Your task to perform on an android device: turn notification dots on Image 0: 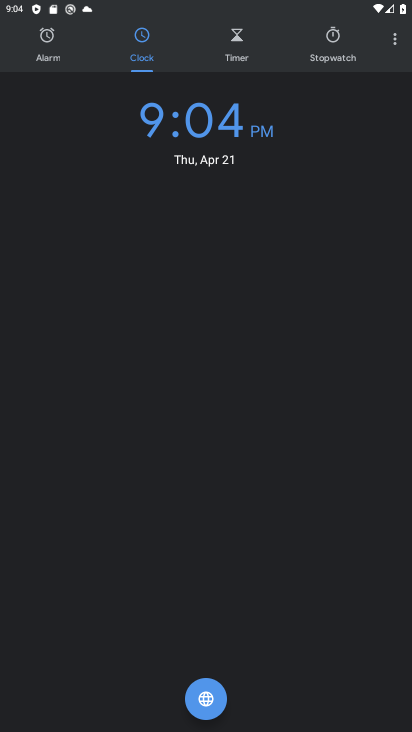
Step 0: press home button
Your task to perform on an android device: turn notification dots on Image 1: 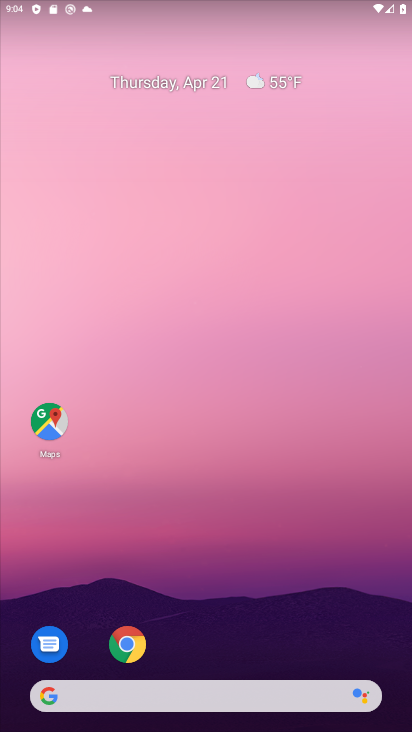
Step 1: drag from (181, 572) to (185, 252)
Your task to perform on an android device: turn notification dots on Image 2: 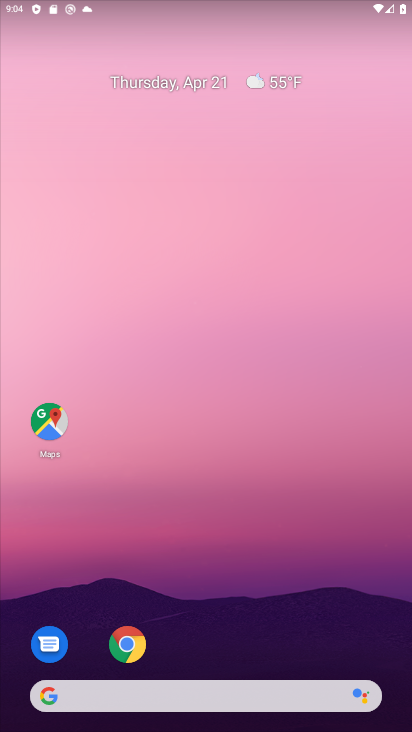
Step 2: drag from (183, 648) to (270, 227)
Your task to perform on an android device: turn notification dots on Image 3: 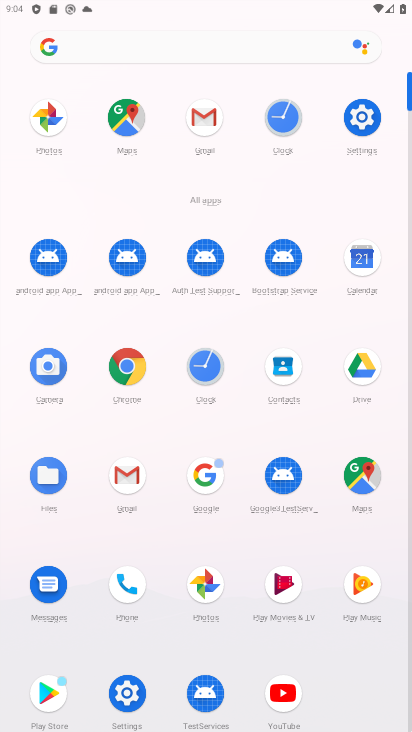
Step 3: click (365, 127)
Your task to perform on an android device: turn notification dots on Image 4: 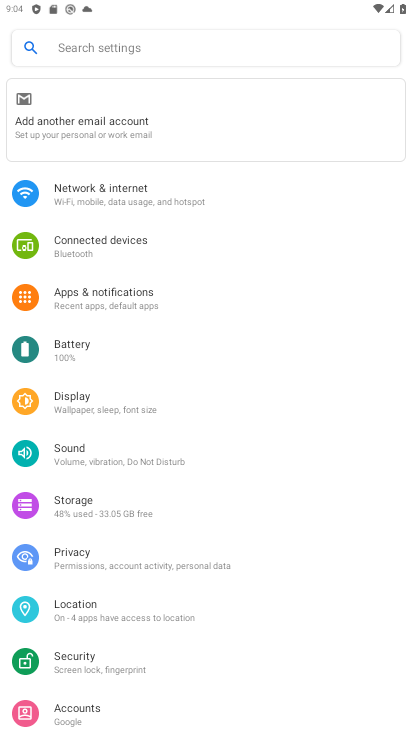
Step 4: click (139, 298)
Your task to perform on an android device: turn notification dots on Image 5: 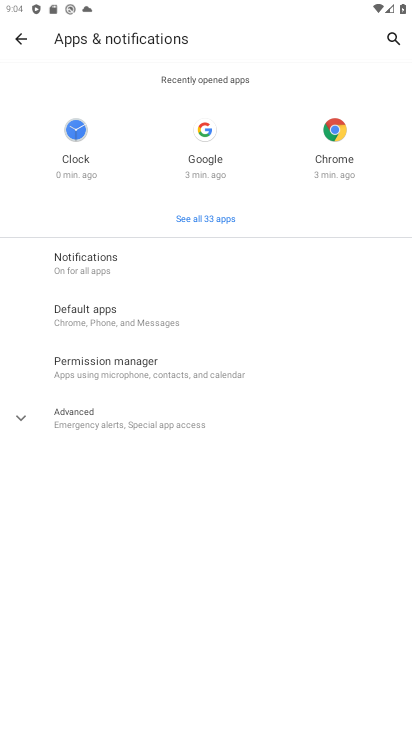
Step 5: click (76, 268)
Your task to perform on an android device: turn notification dots on Image 6: 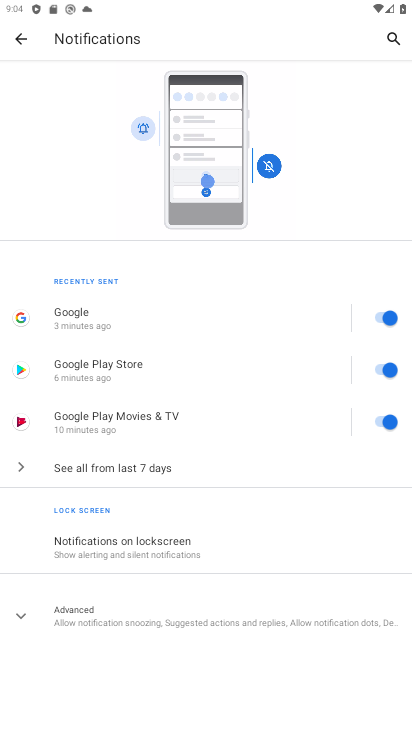
Step 6: click (120, 613)
Your task to perform on an android device: turn notification dots on Image 7: 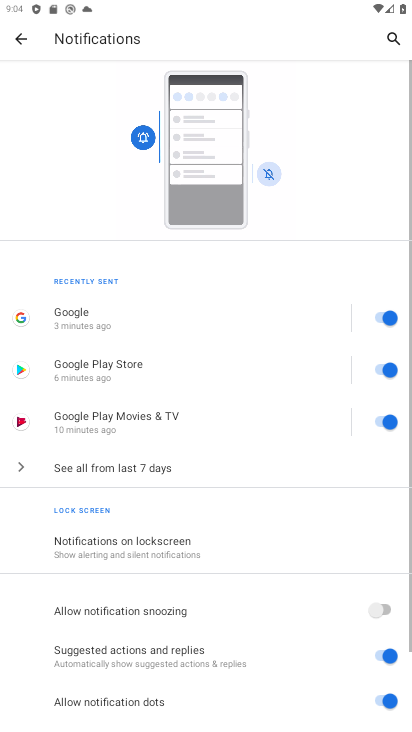
Step 7: drag from (147, 616) to (146, 374)
Your task to perform on an android device: turn notification dots on Image 8: 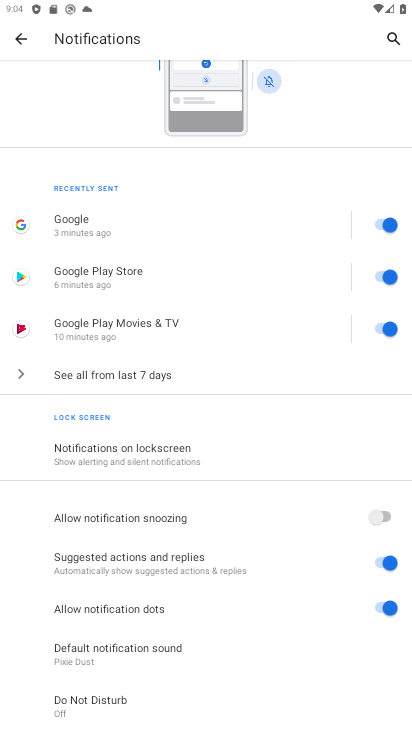
Step 8: click (135, 611)
Your task to perform on an android device: turn notification dots on Image 9: 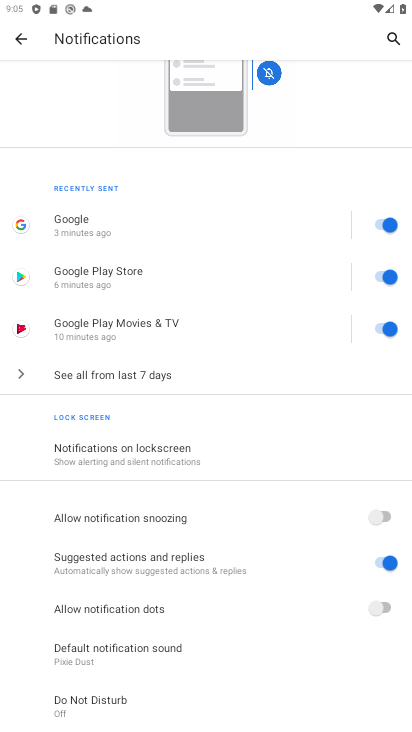
Step 9: click (135, 611)
Your task to perform on an android device: turn notification dots on Image 10: 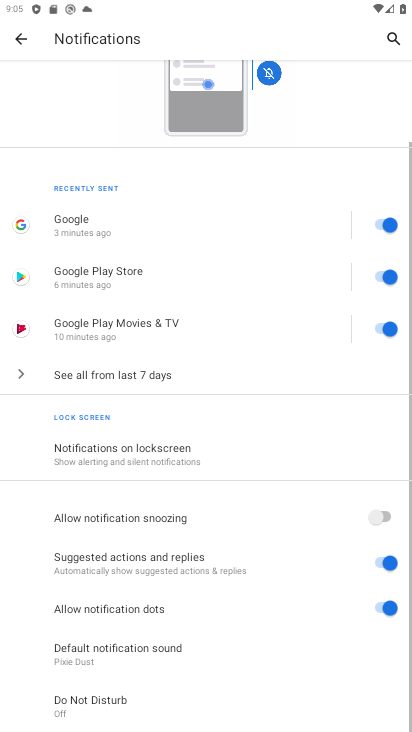
Step 10: task complete